Your task to perform on an android device: turn on the 12-hour format for clock Image 0: 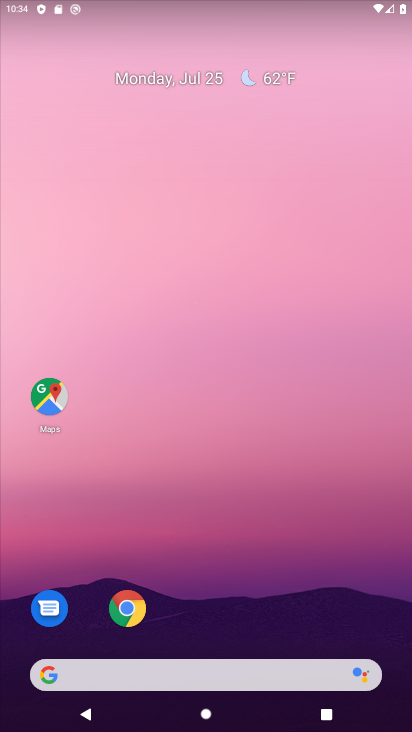
Step 0: drag from (229, 623) to (265, 207)
Your task to perform on an android device: turn on the 12-hour format for clock Image 1: 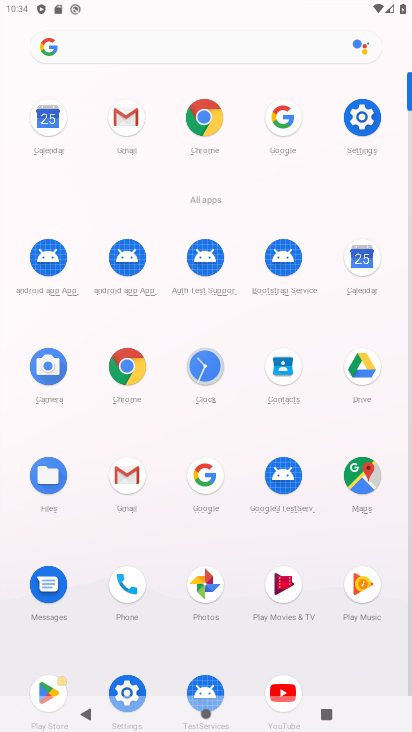
Step 1: click (203, 369)
Your task to perform on an android device: turn on the 12-hour format for clock Image 2: 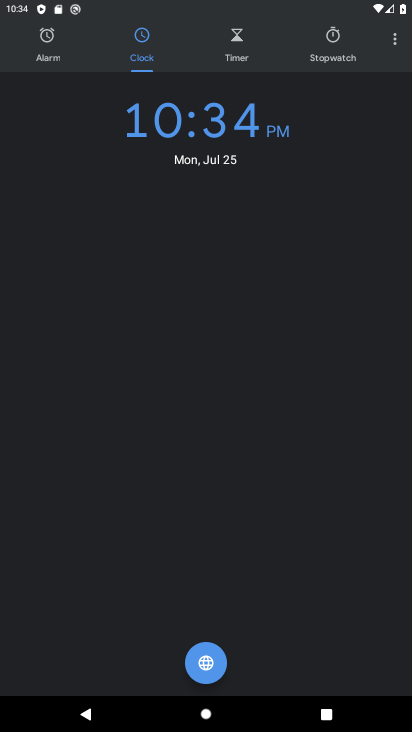
Step 2: click (393, 50)
Your task to perform on an android device: turn on the 12-hour format for clock Image 3: 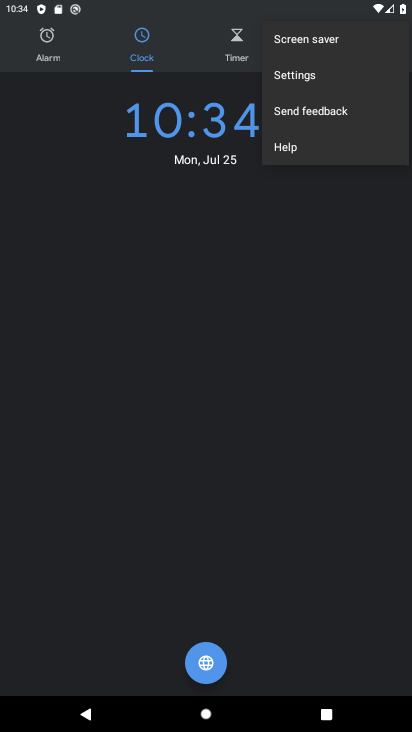
Step 3: click (287, 77)
Your task to perform on an android device: turn on the 12-hour format for clock Image 4: 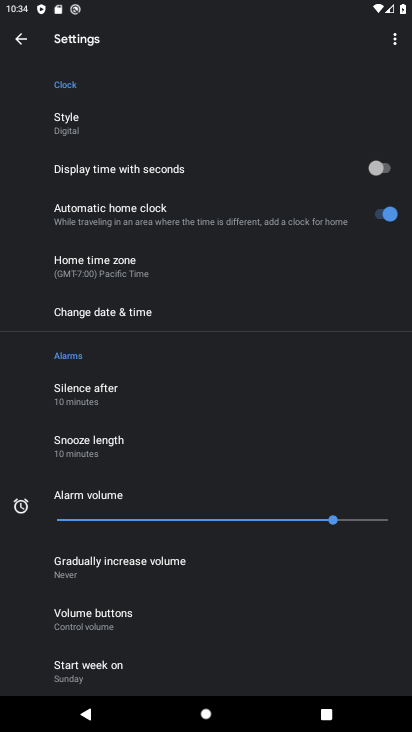
Step 4: click (117, 311)
Your task to perform on an android device: turn on the 12-hour format for clock Image 5: 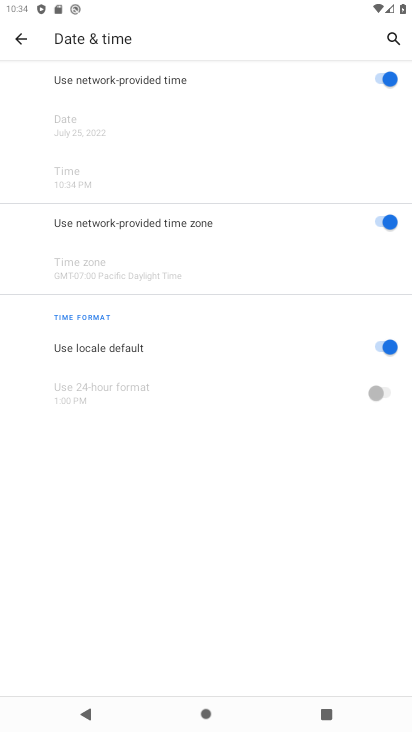
Step 5: task complete